Your task to perform on an android device: turn on airplane mode Image 0: 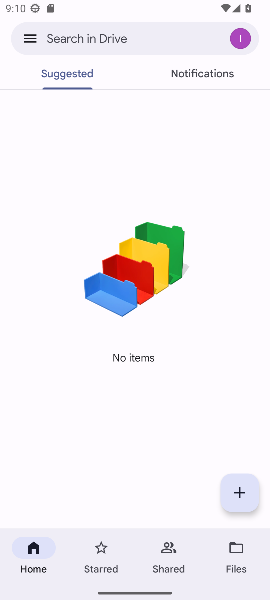
Step 0: press home button
Your task to perform on an android device: turn on airplane mode Image 1: 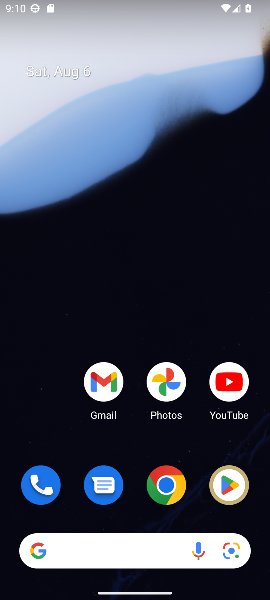
Step 1: drag from (194, 446) to (198, 75)
Your task to perform on an android device: turn on airplane mode Image 2: 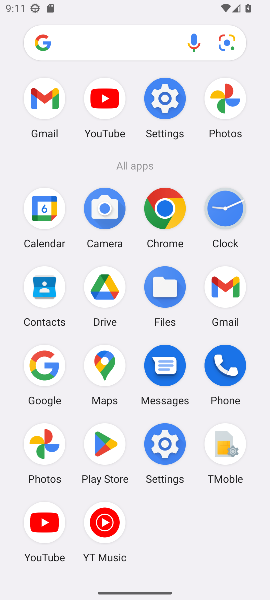
Step 2: click (165, 447)
Your task to perform on an android device: turn on airplane mode Image 3: 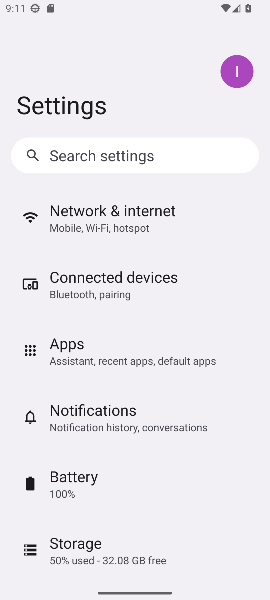
Step 3: click (143, 218)
Your task to perform on an android device: turn on airplane mode Image 4: 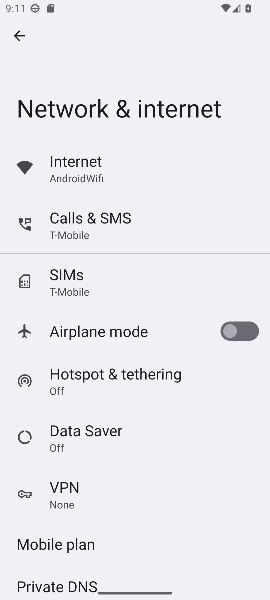
Step 4: click (241, 332)
Your task to perform on an android device: turn on airplane mode Image 5: 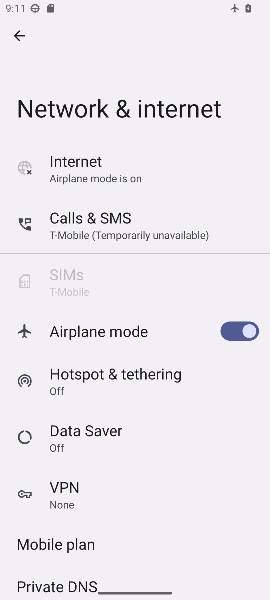
Step 5: task complete